Your task to perform on an android device: Go to ESPN.com Image 0: 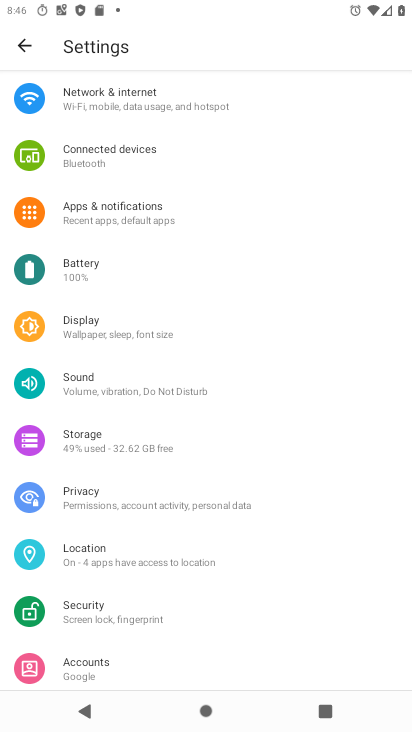
Step 0: press back button
Your task to perform on an android device: Go to ESPN.com Image 1: 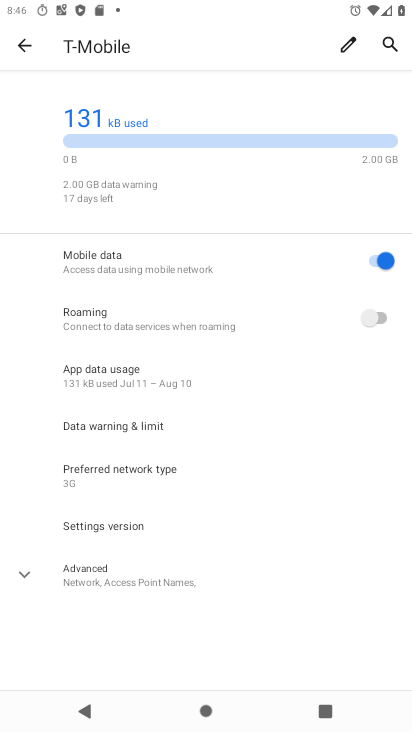
Step 1: press home button
Your task to perform on an android device: Go to ESPN.com Image 2: 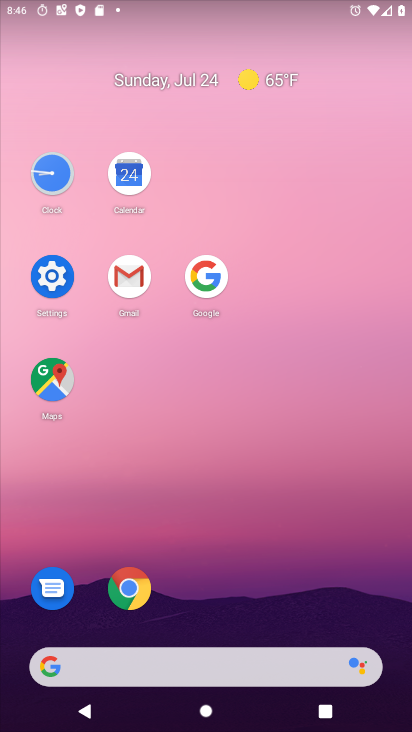
Step 2: click (139, 602)
Your task to perform on an android device: Go to ESPN.com Image 3: 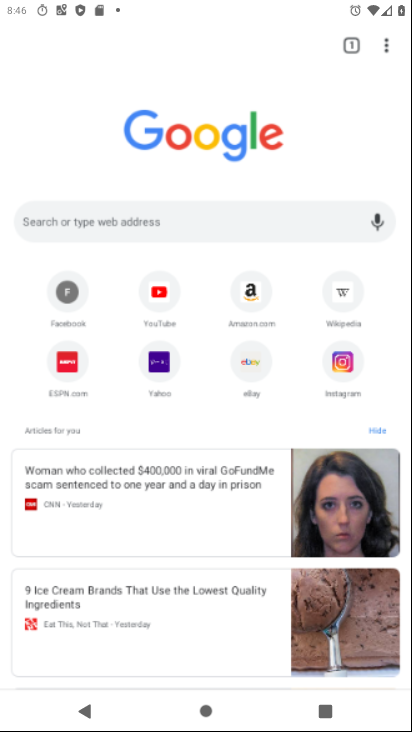
Step 3: click (100, 398)
Your task to perform on an android device: Go to ESPN.com Image 4: 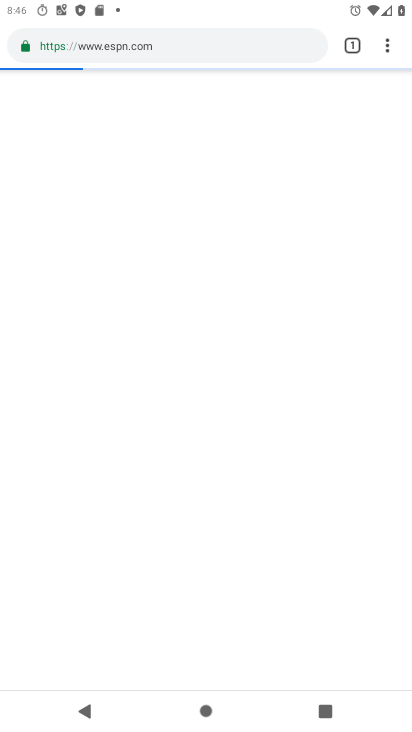
Step 4: click (88, 383)
Your task to perform on an android device: Go to ESPN.com Image 5: 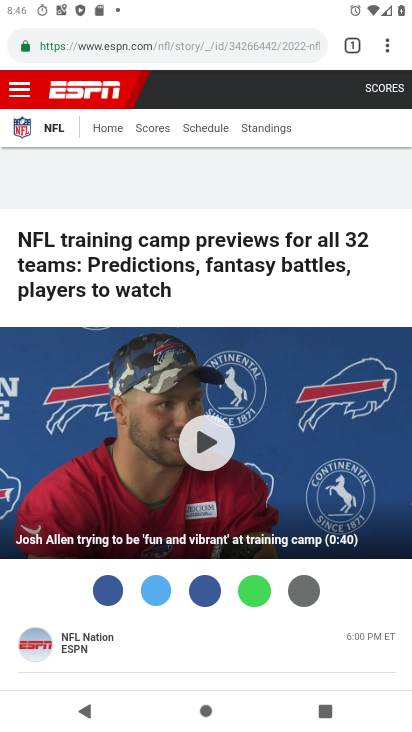
Step 5: task complete